Your task to perform on an android device: Open location settings Image 0: 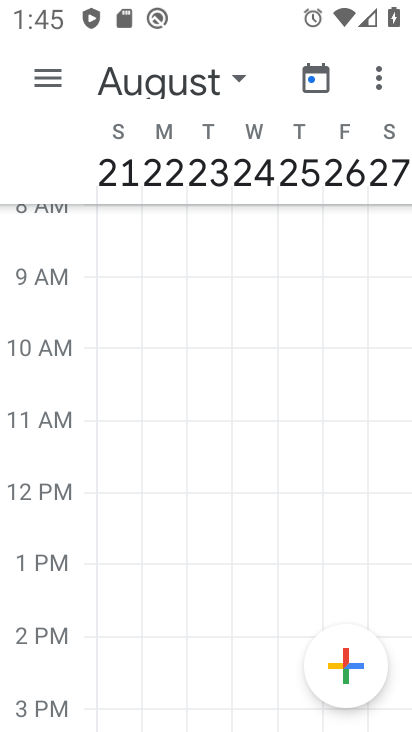
Step 0: press home button
Your task to perform on an android device: Open location settings Image 1: 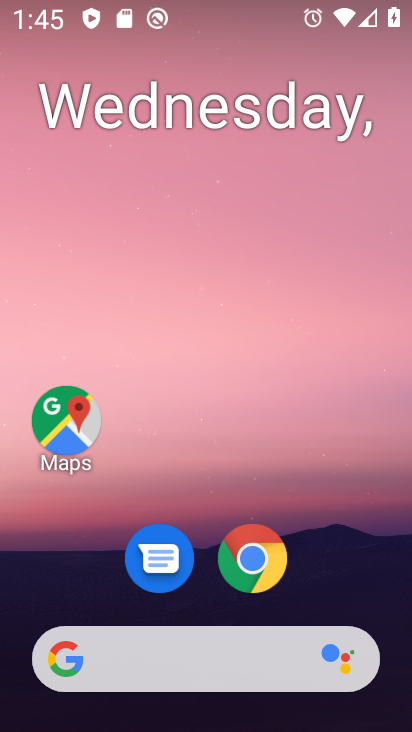
Step 1: drag from (373, 585) to (323, 149)
Your task to perform on an android device: Open location settings Image 2: 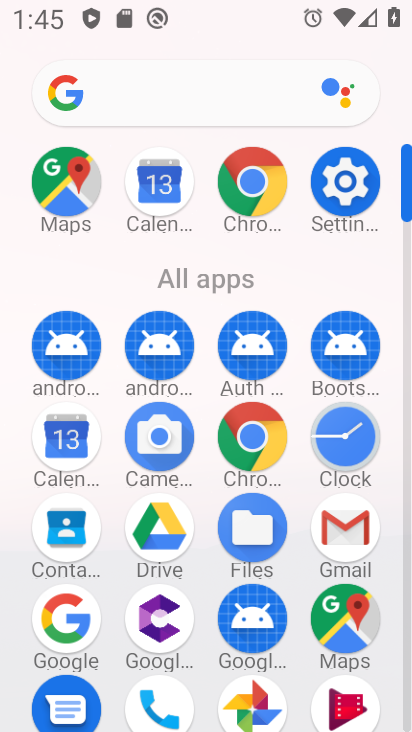
Step 2: click (349, 181)
Your task to perform on an android device: Open location settings Image 3: 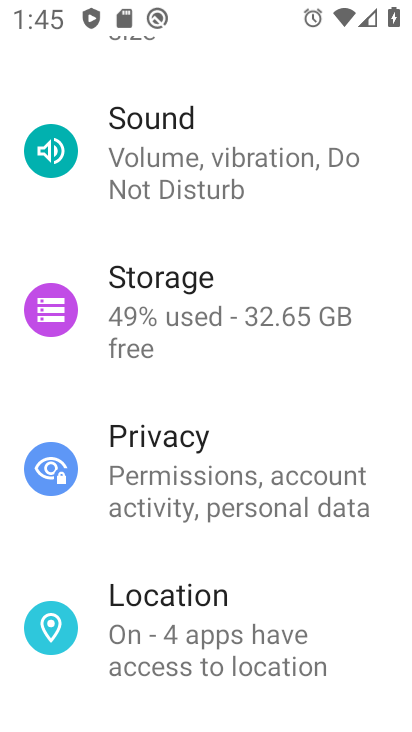
Step 3: click (241, 619)
Your task to perform on an android device: Open location settings Image 4: 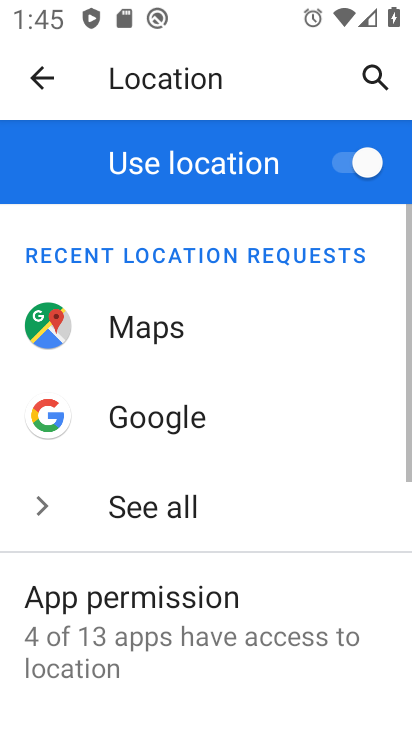
Step 4: task complete